Your task to perform on an android device: Open the calendar app, open the side menu, and click the "Day" option Image 0: 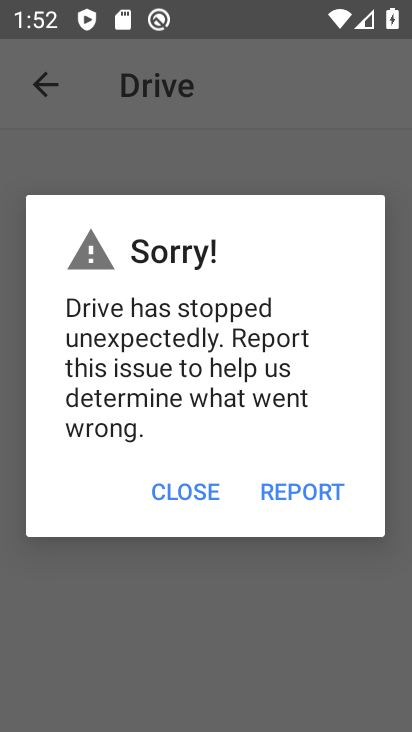
Step 0: press home button
Your task to perform on an android device: Open the calendar app, open the side menu, and click the "Day" option Image 1: 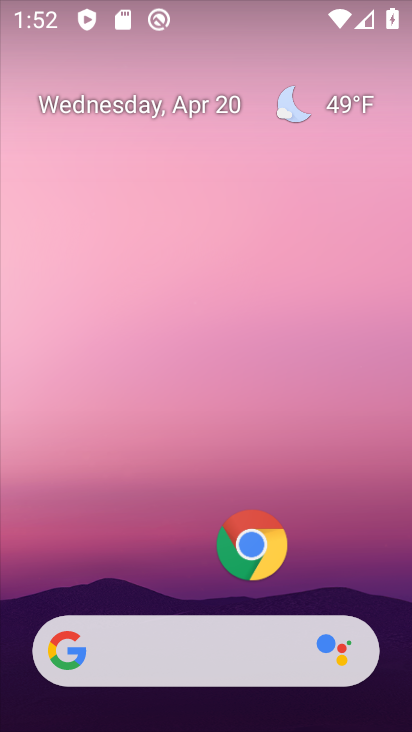
Step 1: drag from (162, 576) to (196, 1)
Your task to perform on an android device: Open the calendar app, open the side menu, and click the "Day" option Image 2: 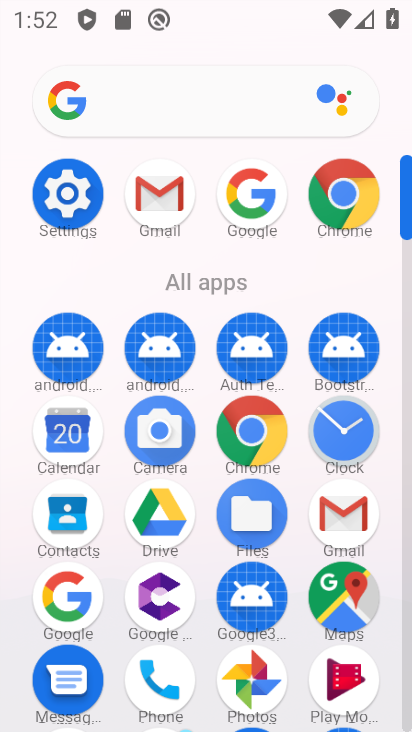
Step 2: click (67, 435)
Your task to perform on an android device: Open the calendar app, open the side menu, and click the "Day" option Image 3: 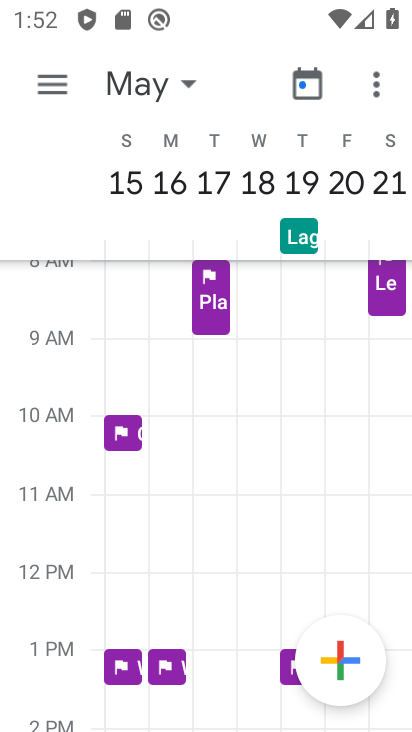
Step 3: click (49, 80)
Your task to perform on an android device: Open the calendar app, open the side menu, and click the "Day" option Image 4: 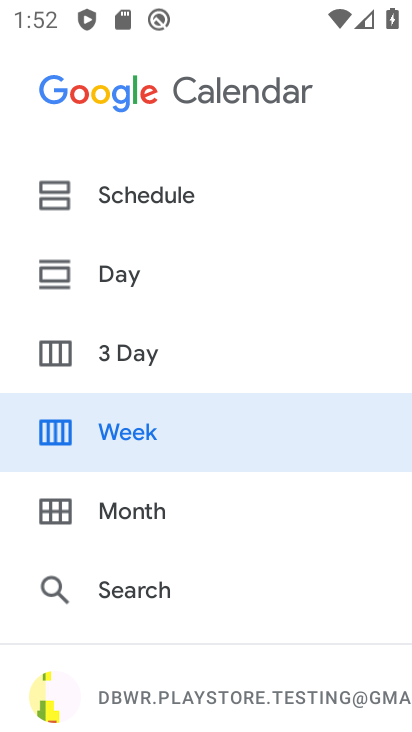
Step 4: click (115, 272)
Your task to perform on an android device: Open the calendar app, open the side menu, and click the "Day" option Image 5: 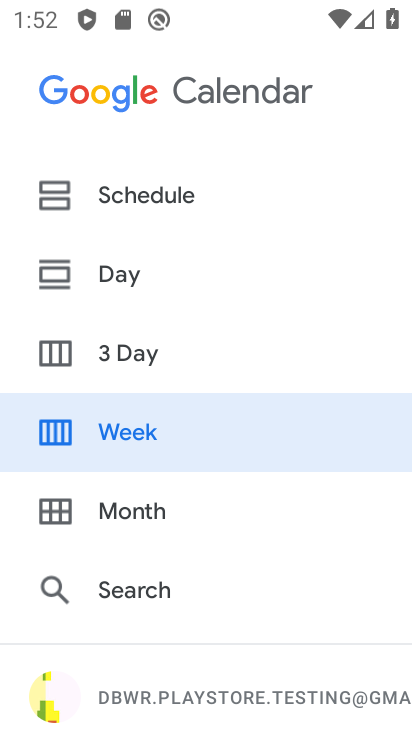
Step 5: click (127, 275)
Your task to perform on an android device: Open the calendar app, open the side menu, and click the "Day" option Image 6: 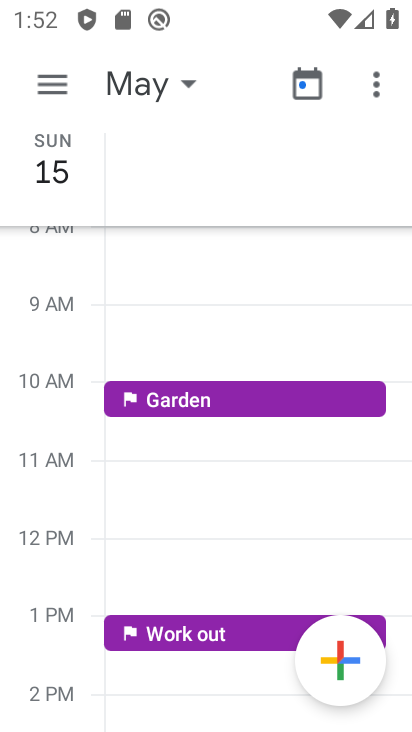
Step 6: task complete